Your task to perform on an android device: show emergency info Image 0: 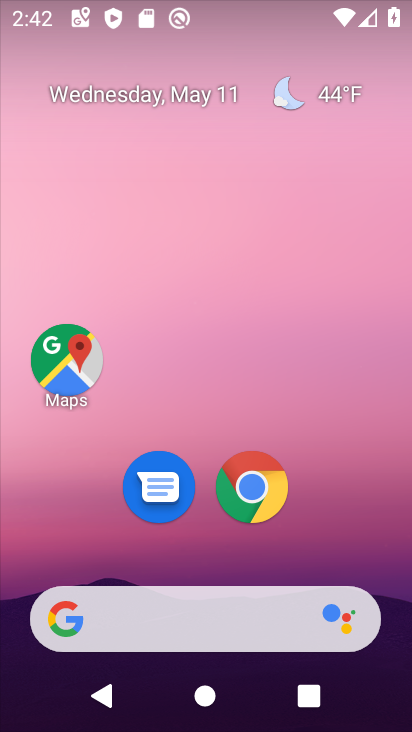
Step 0: drag from (179, 521) to (252, 4)
Your task to perform on an android device: show emergency info Image 1: 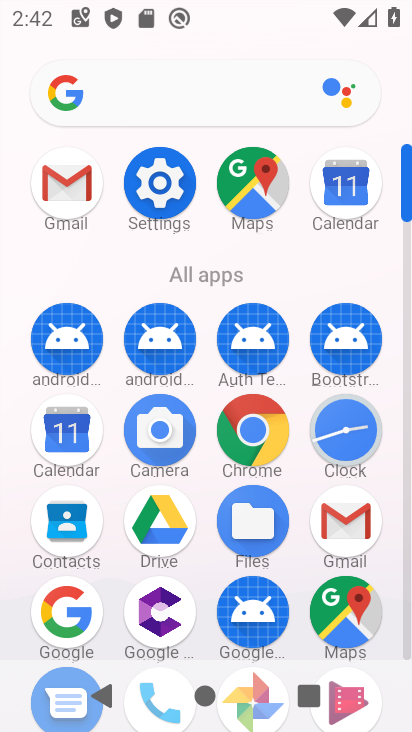
Step 1: click (161, 180)
Your task to perform on an android device: show emergency info Image 2: 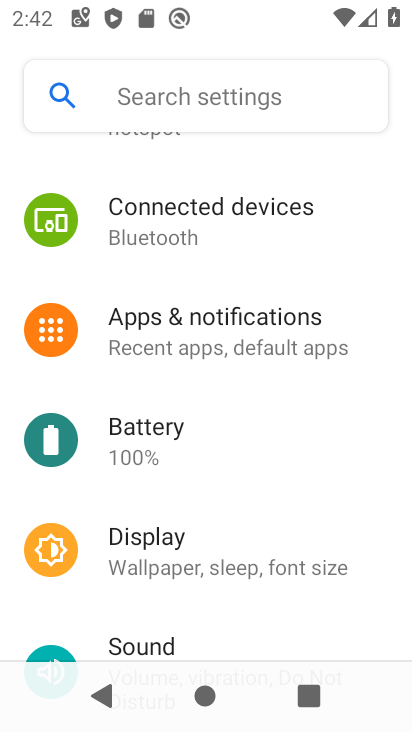
Step 2: drag from (224, 572) to (291, 137)
Your task to perform on an android device: show emergency info Image 3: 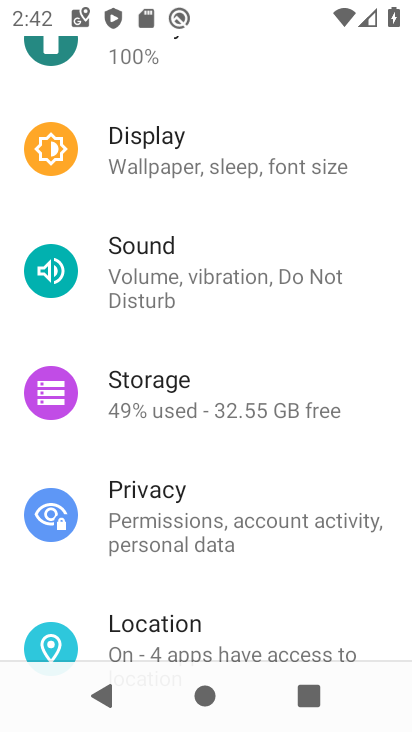
Step 3: drag from (200, 557) to (302, 0)
Your task to perform on an android device: show emergency info Image 4: 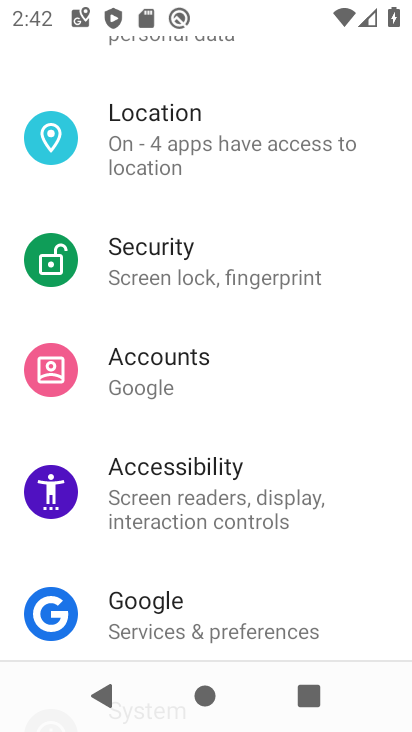
Step 4: drag from (202, 590) to (321, 47)
Your task to perform on an android device: show emergency info Image 5: 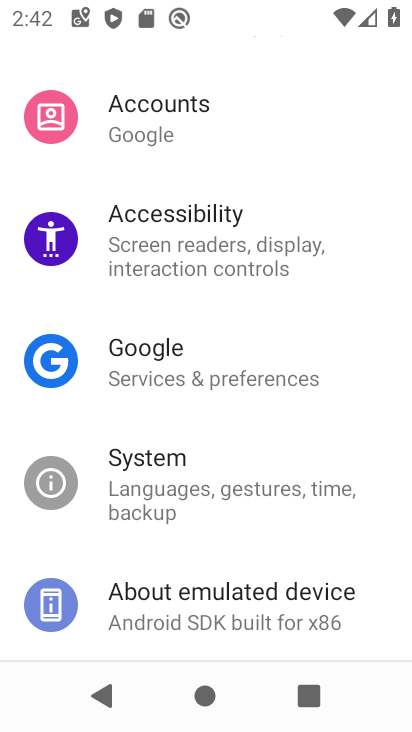
Step 5: click (232, 606)
Your task to perform on an android device: show emergency info Image 6: 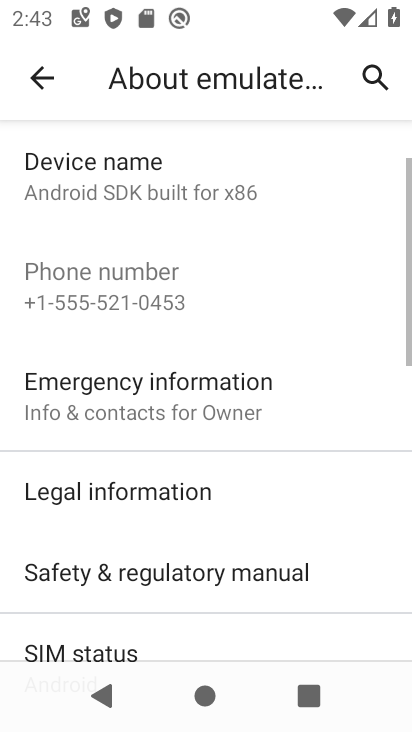
Step 6: click (189, 400)
Your task to perform on an android device: show emergency info Image 7: 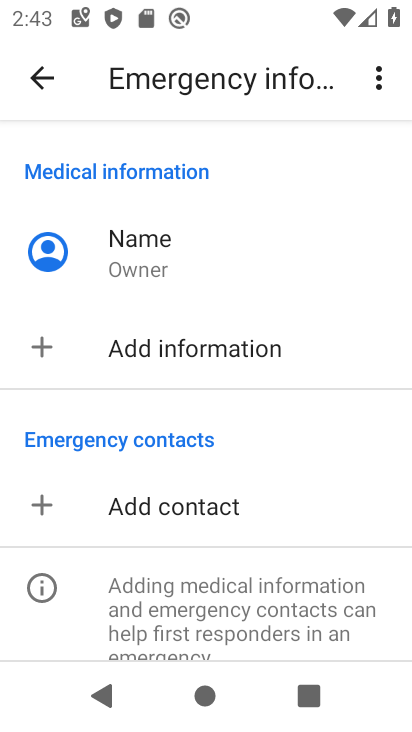
Step 7: task complete